Your task to perform on an android device: Open sound settings Image 0: 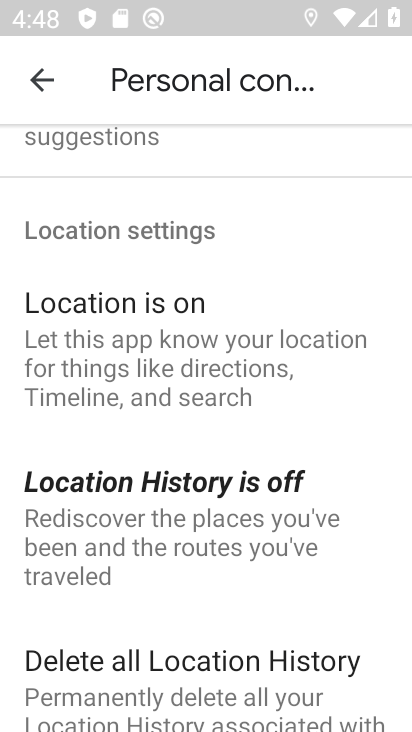
Step 0: press home button
Your task to perform on an android device: Open sound settings Image 1: 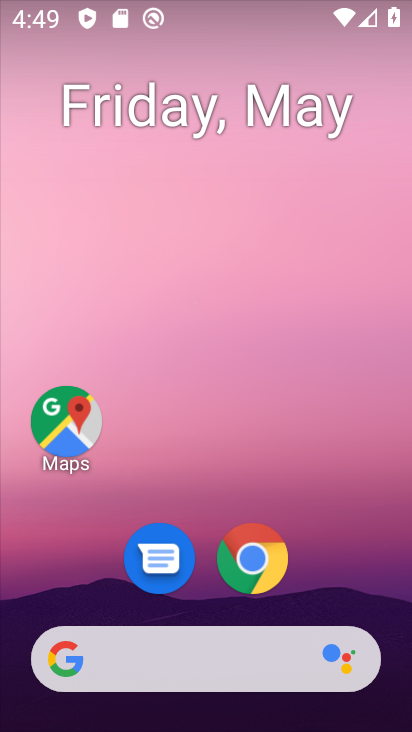
Step 1: drag from (388, 627) to (282, 201)
Your task to perform on an android device: Open sound settings Image 2: 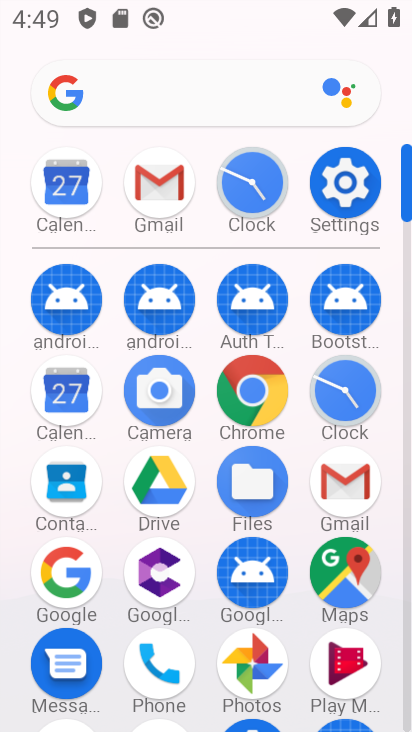
Step 2: click (356, 180)
Your task to perform on an android device: Open sound settings Image 3: 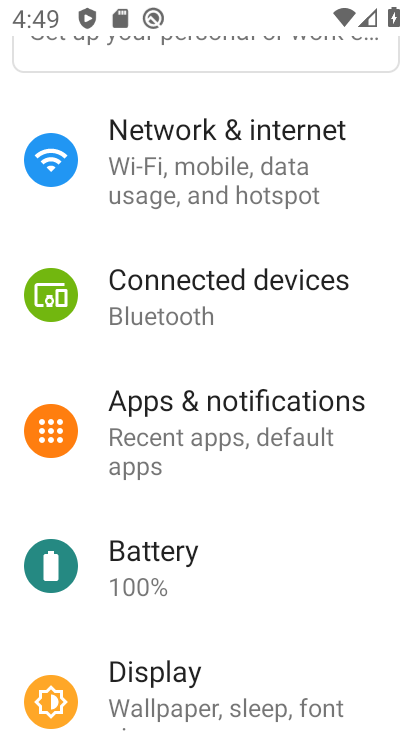
Step 3: drag from (268, 600) to (219, 241)
Your task to perform on an android device: Open sound settings Image 4: 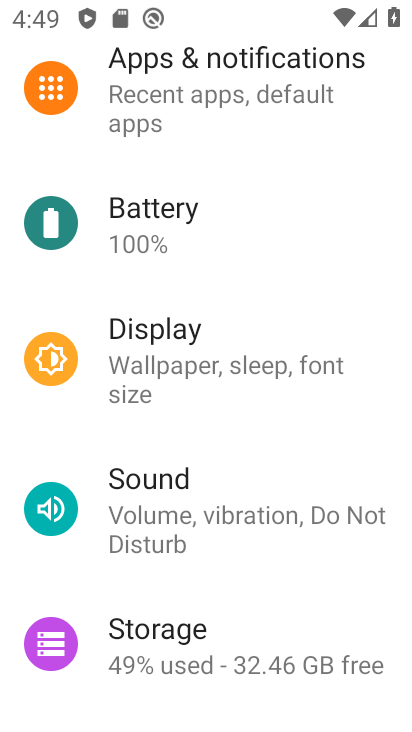
Step 4: click (268, 501)
Your task to perform on an android device: Open sound settings Image 5: 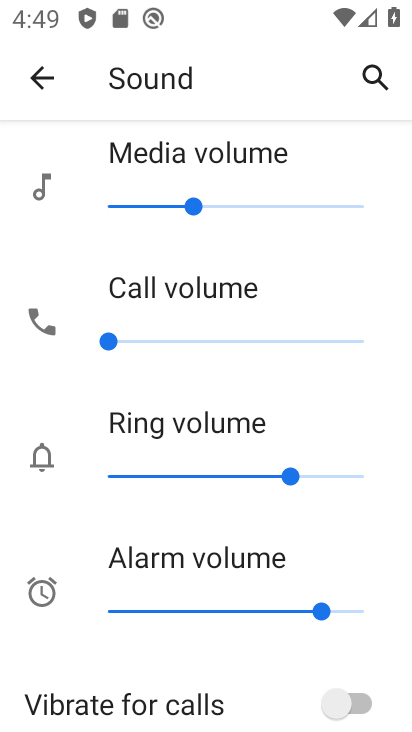
Step 5: task complete